Your task to perform on an android device: Go to calendar. Show me events next week Image 0: 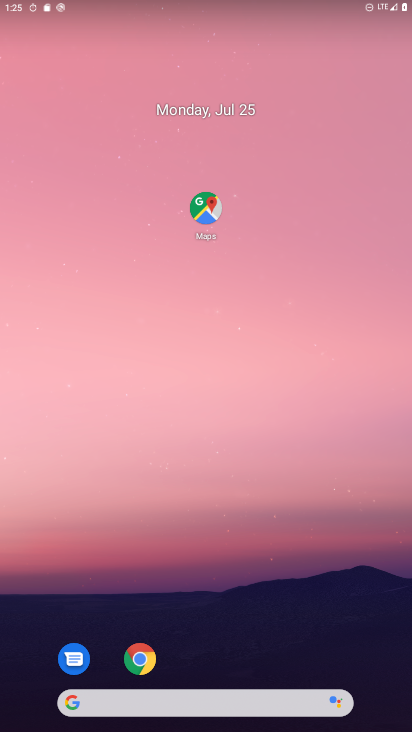
Step 0: drag from (56, 653) to (192, 25)
Your task to perform on an android device: Go to calendar. Show me events next week Image 1: 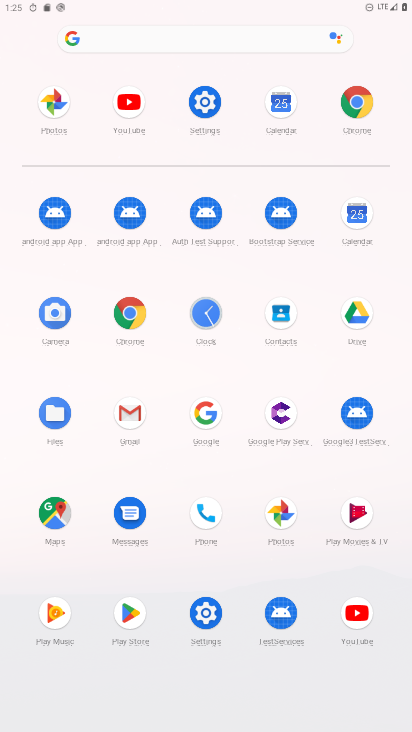
Step 1: click (355, 204)
Your task to perform on an android device: Go to calendar. Show me events next week Image 2: 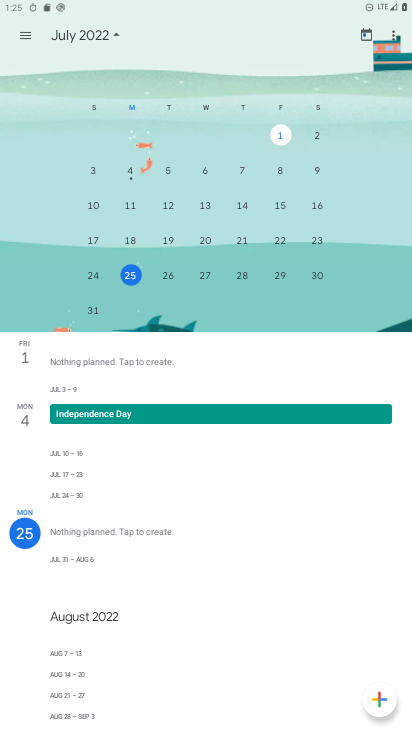
Step 2: task complete